Your task to perform on an android device: open the mobile data screen to see how much data has been used Image 0: 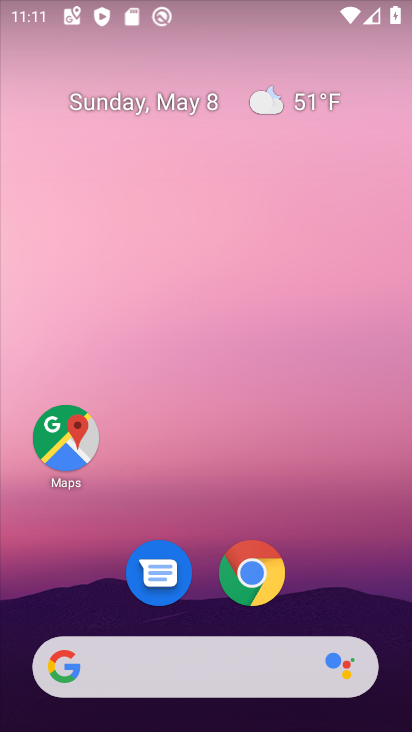
Step 0: drag from (183, 637) to (244, 172)
Your task to perform on an android device: open the mobile data screen to see how much data has been used Image 1: 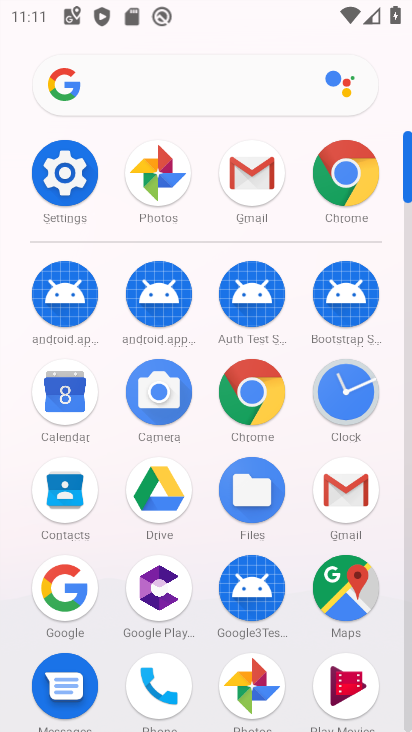
Step 1: click (69, 170)
Your task to perform on an android device: open the mobile data screen to see how much data has been used Image 2: 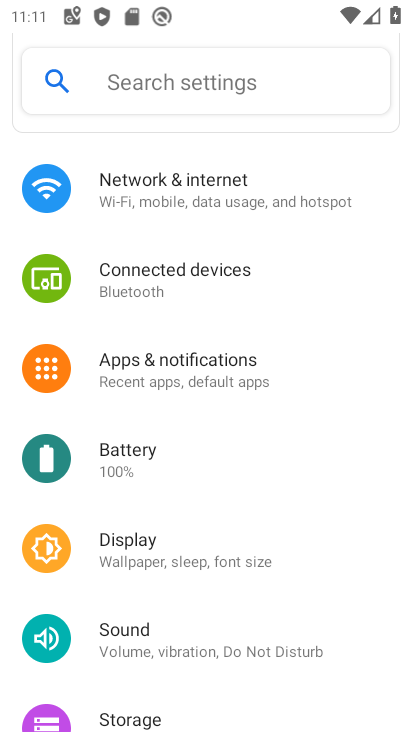
Step 2: click (102, 199)
Your task to perform on an android device: open the mobile data screen to see how much data has been used Image 3: 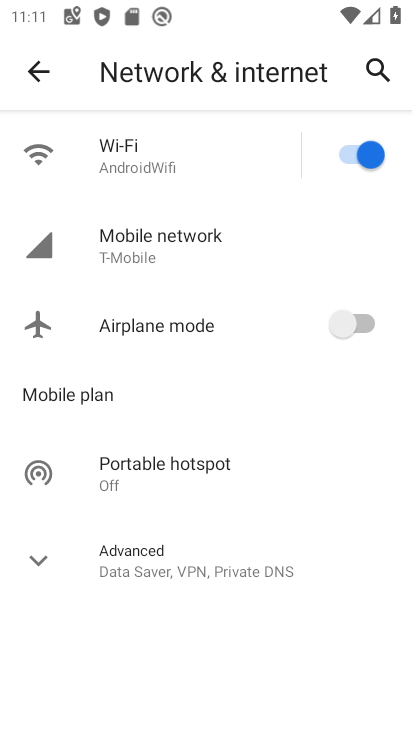
Step 3: click (144, 247)
Your task to perform on an android device: open the mobile data screen to see how much data has been used Image 4: 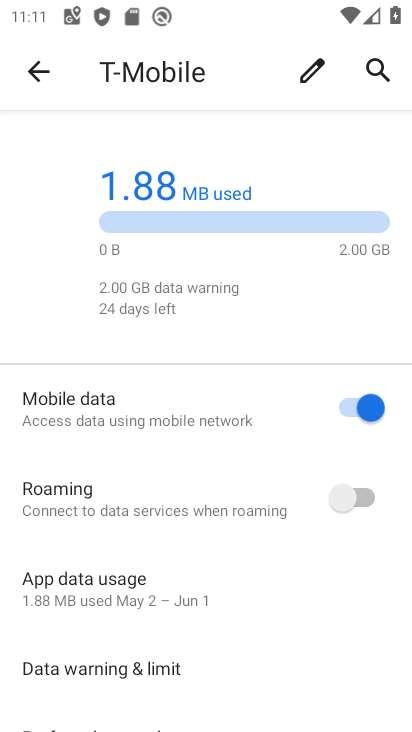
Step 4: task complete